Your task to perform on an android device: Open calendar and show me the first week of next month Image 0: 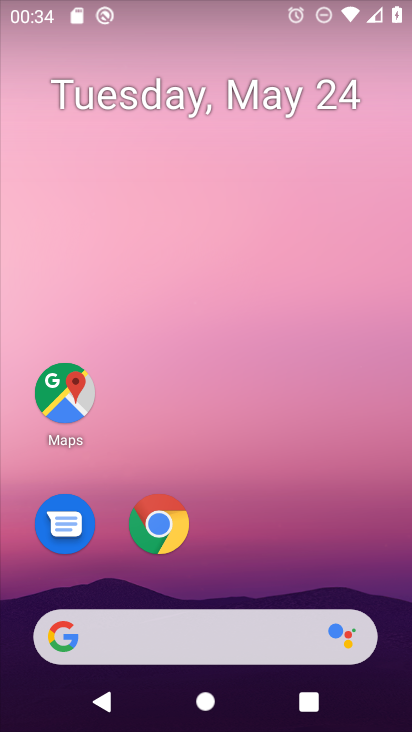
Step 0: drag from (217, 569) to (222, 196)
Your task to perform on an android device: Open calendar and show me the first week of next month Image 1: 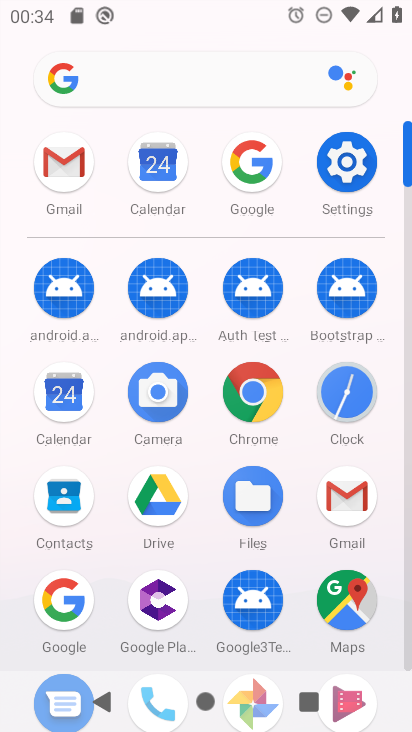
Step 1: click (73, 406)
Your task to perform on an android device: Open calendar and show me the first week of next month Image 2: 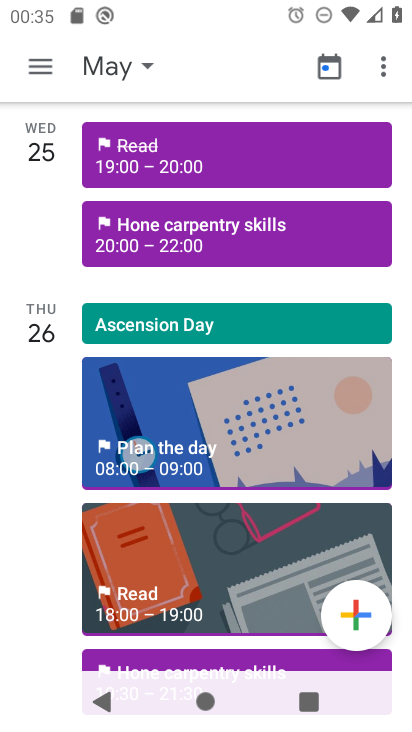
Step 2: click (142, 67)
Your task to perform on an android device: Open calendar and show me the first week of next month Image 3: 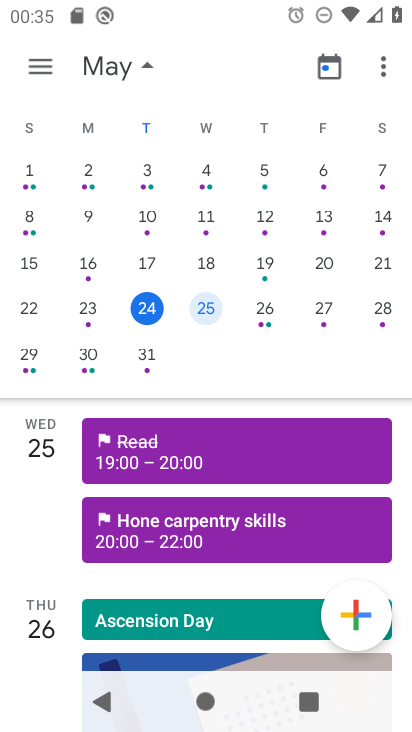
Step 3: drag from (300, 256) to (61, 225)
Your task to perform on an android device: Open calendar and show me the first week of next month Image 4: 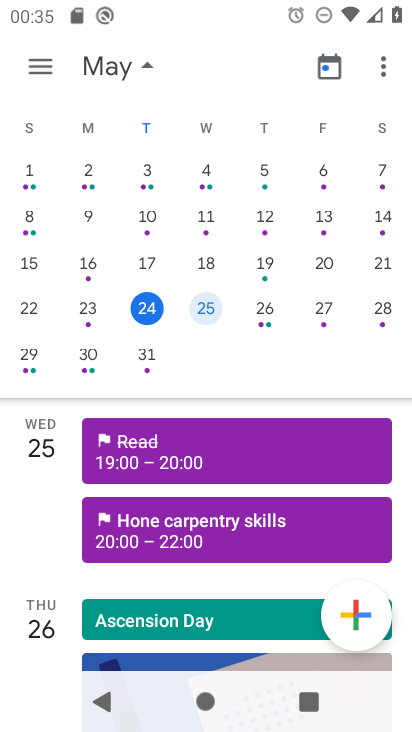
Step 4: drag from (336, 238) to (37, 196)
Your task to perform on an android device: Open calendar and show me the first week of next month Image 5: 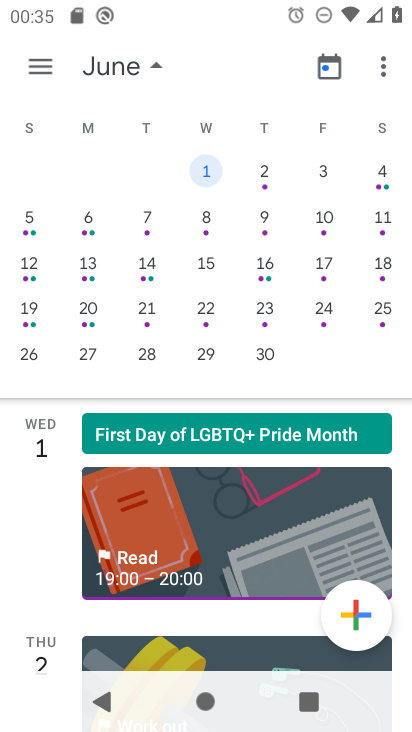
Step 5: click (210, 162)
Your task to perform on an android device: Open calendar and show me the first week of next month Image 6: 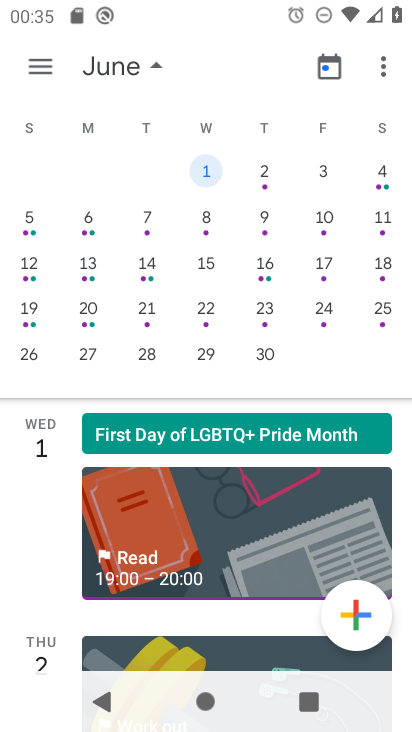
Step 6: task complete